Your task to perform on an android device: all mails in gmail Image 0: 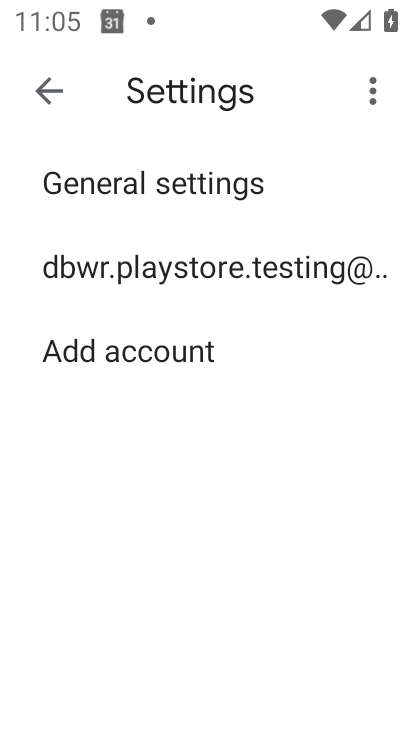
Step 0: press home button
Your task to perform on an android device: all mails in gmail Image 1: 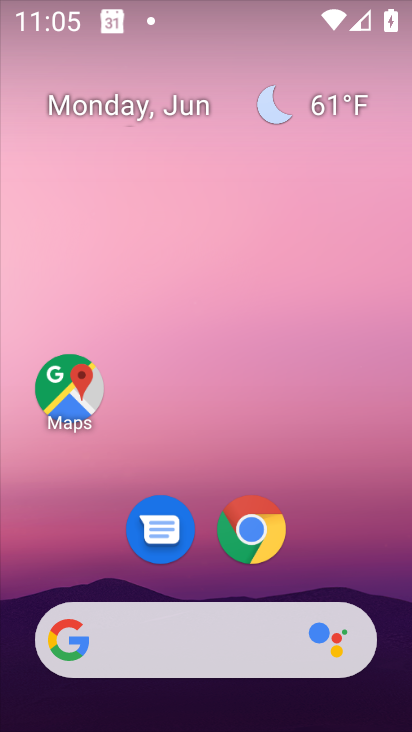
Step 1: drag from (86, 590) to (169, 104)
Your task to perform on an android device: all mails in gmail Image 2: 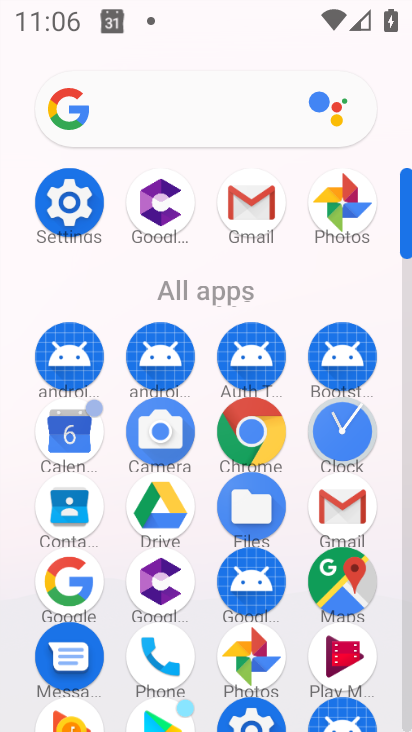
Step 2: click (348, 519)
Your task to perform on an android device: all mails in gmail Image 3: 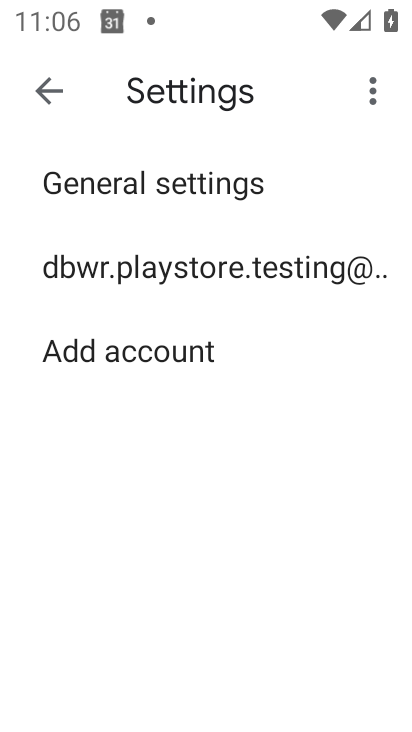
Step 3: click (42, 76)
Your task to perform on an android device: all mails in gmail Image 4: 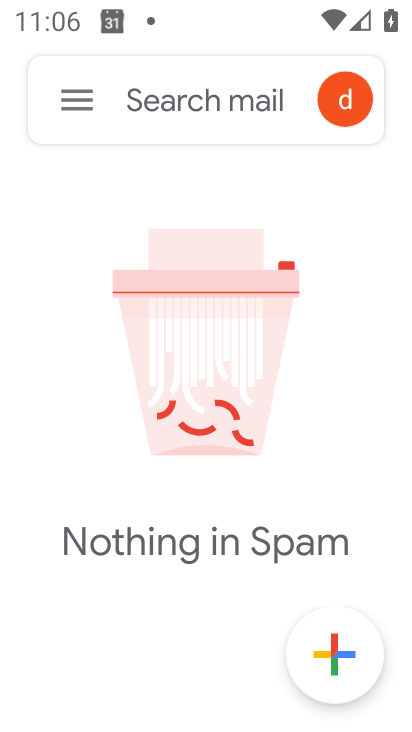
Step 4: click (79, 108)
Your task to perform on an android device: all mails in gmail Image 5: 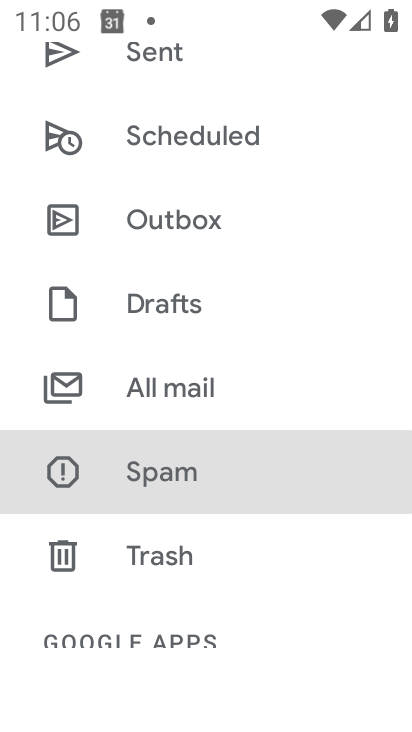
Step 5: click (220, 384)
Your task to perform on an android device: all mails in gmail Image 6: 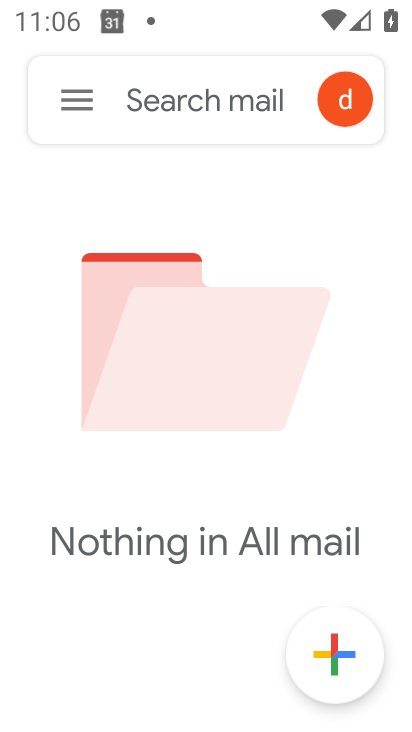
Step 6: task complete